Your task to perform on an android device: Empty the shopping cart on walmart.com. Search for duracell triple a on walmart.com, select the first entry, and add it to the cart. Image 0: 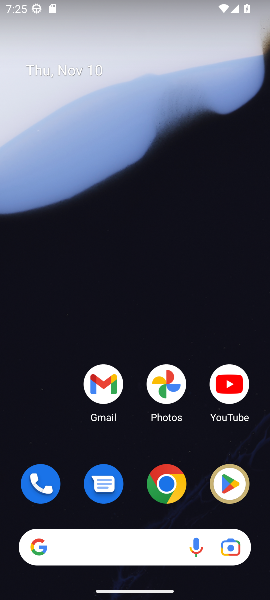
Step 0: click (168, 487)
Your task to perform on an android device: Empty the shopping cart on walmart.com. Search for duracell triple a on walmart.com, select the first entry, and add it to the cart. Image 1: 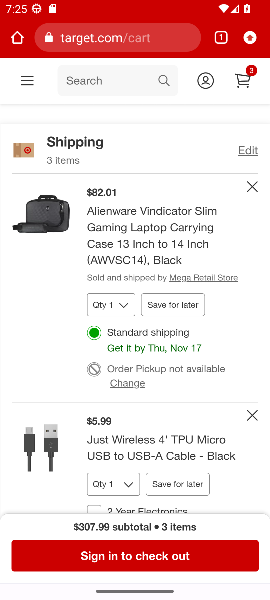
Step 1: click (86, 28)
Your task to perform on an android device: Empty the shopping cart on walmart.com. Search for duracell triple a on walmart.com, select the first entry, and add it to the cart. Image 2: 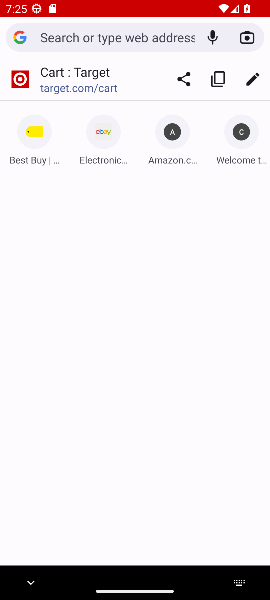
Step 2: type "walmart.com"
Your task to perform on an android device: Empty the shopping cart on walmart.com. Search for duracell triple a on walmart.com, select the first entry, and add it to the cart. Image 3: 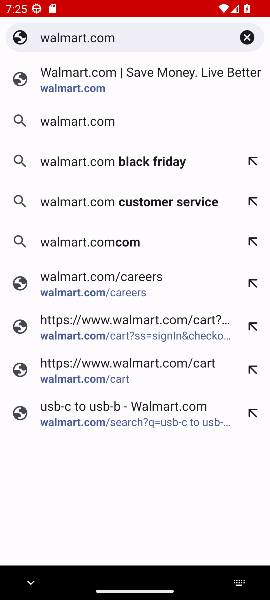
Step 3: click (65, 90)
Your task to perform on an android device: Empty the shopping cart on walmart.com. Search for duracell triple a on walmart.com, select the first entry, and add it to the cart. Image 4: 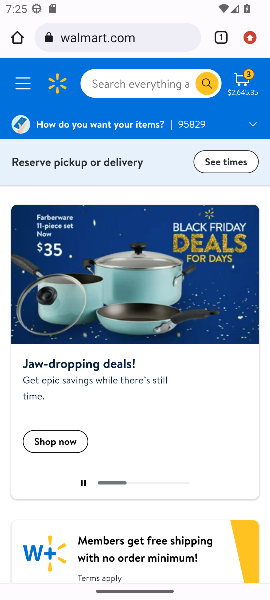
Step 4: click (238, 86)
Your task to perform on an android device: Empty the shopping cart on walmart.com. Search for duracell triple a on walmart.com, select the first entry, and add it to the cart. Image 5: 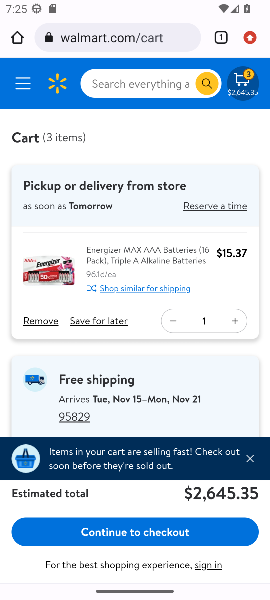
Step 5: click (38, 320)
Your task to perform on an android device: Empty the shopping cart on walmart.com. Search for duracell triple a on walmart.com, select the first entry, and add it to the cart. Image 6: 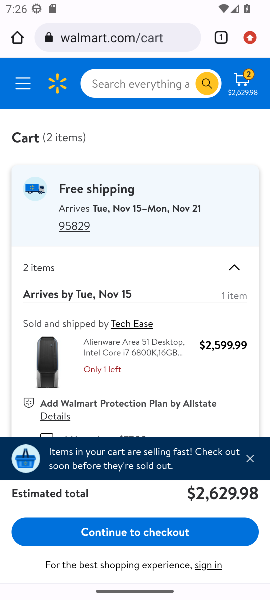
Step 6: drag from (141, 402) to (130, 203)
Your task to perform on an android device: Empty the shopping cart on walmart.com. Search for duracell triple a on walmart.com, select the first entry, and add it to the cart. Image 7: 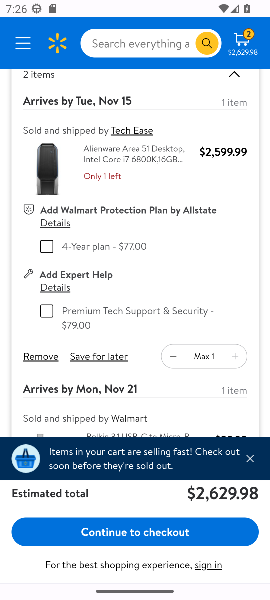
Step 7: click (43, 356)
Your task to perform on an android device: Empty the shopping cart on walmart.com. Search for duracell triple a on walmart.com, select the first entry, and add it to the cart. Image 8: 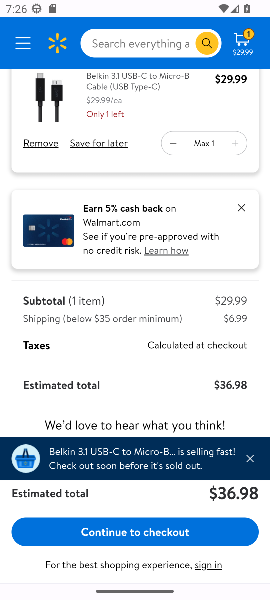
Step 8: drag from (145, 312) to (136, 342)
Your task to perform on an android device: Empty the shopping cart on walmart.com. Search for duracell triple a on walmart.com, select the first entry, and add it to the cart. Image 9: 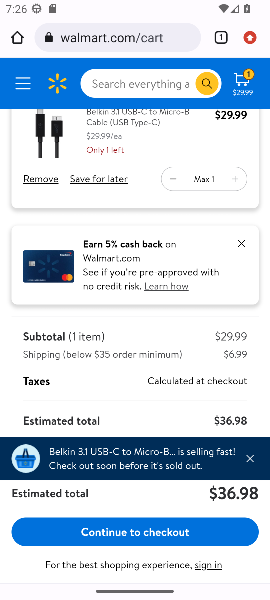
Step 9: click (34, 183)
Your task to perform on an android device: Empty the shopping cart on walmart.com. Search for duracell triple a on walmart.com, select the first entry, and add it to the cart. Image 10: 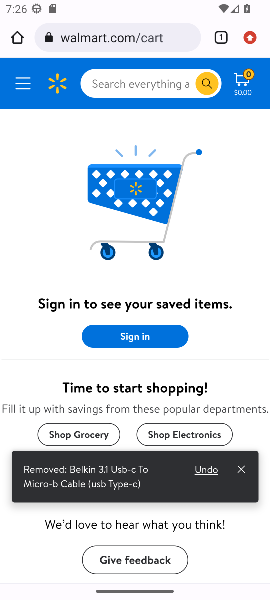
Step 10: drag from (209, 355) to (210, 290)
Your task to perform on an android device: Empty the shopping cart on walmart.com. Search for duracell triple a on walmart.com, select the first entry, and add it to the cart. Image 11: 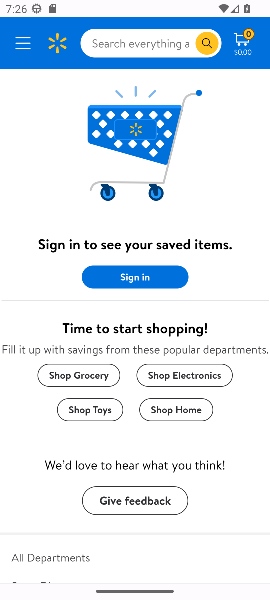
Step 11: click (196, 45)
Your task to perform on an android device: Empty the shopping cart on walmart.com. Search for duracell triple a on walmart.com, select the first entry, and add it to the cart. Image 12: 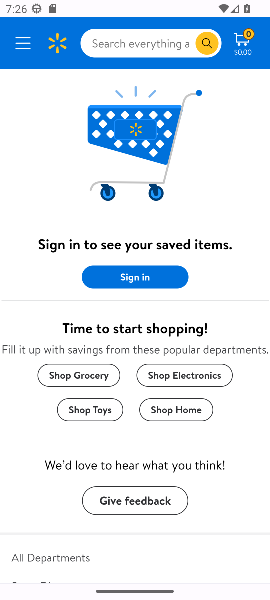
Step 12: click (130, 41)
Your task to perform on an android device: Empty the shopping cart on walmart.com. Search for duracell triple a on walmart.com, select the first entry, and add it to the cart. Image 13: 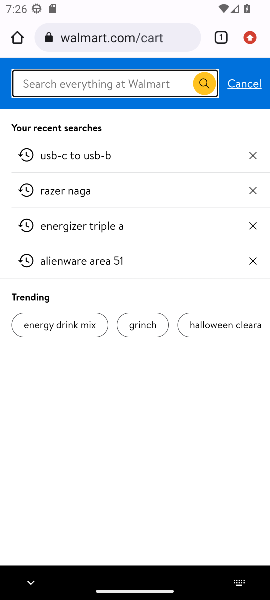
Step 13: type "duracell triple a"
Your task to perform on an android device: Empty the shopping cart on walmart.com. Search for duracell triple a on walmart.com, select the first entry, and add it to the cart. Image 14: 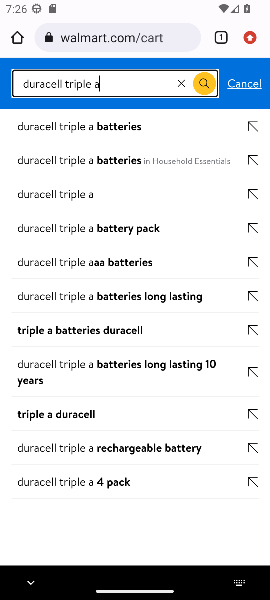
Step 14: click (84, 193)
Your task to perform on an android device: Empty the shopping cart on walmart.com. Search for duracell triple a on walmart.com, select the first entry, and add it to the cart. Image 15: 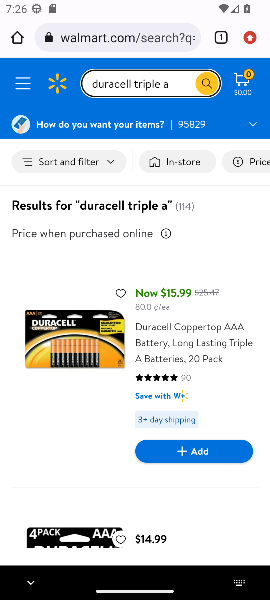
Step 15: click (195, 454)
Your task to perform on an android device: Empty the shopping cart on walmart.com. Search for duracell triple a on walmart.com, select the first entry, and add it to the cart. Image 16: 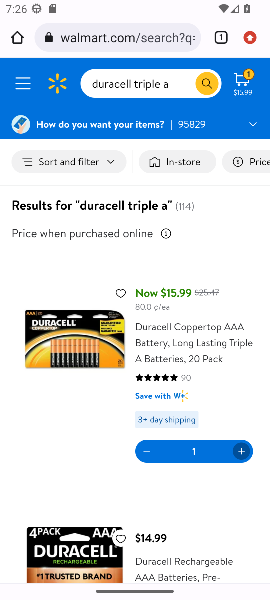
Step 16: task complete